Your task to perform on an android device: turn off notifications settings in the gmail app Image 0: 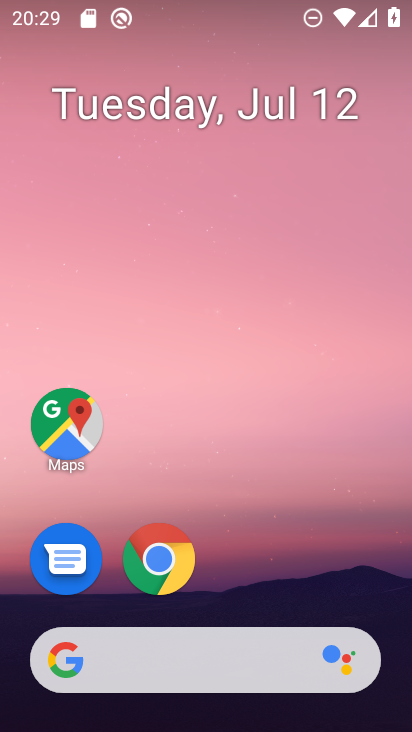
Step 0: drag from (324, 578) to (346, 153)
Your task to perform on an android device: turn off notifications settings in the gmail app Image 1: 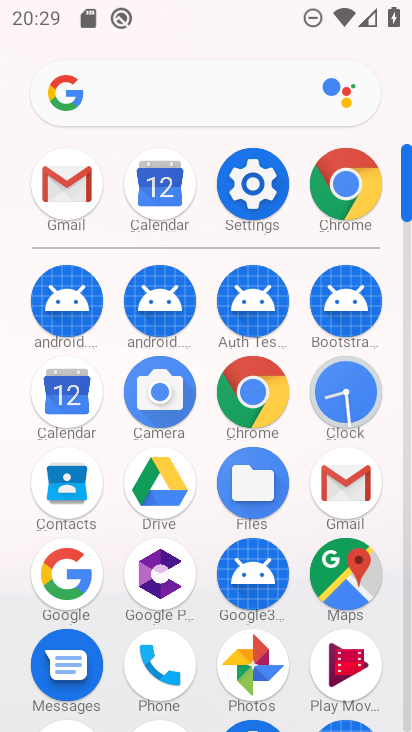
Step 1: click (341, 481)
Your task to perform on an android device: turn off notifications settings in the gmail app Image 2: 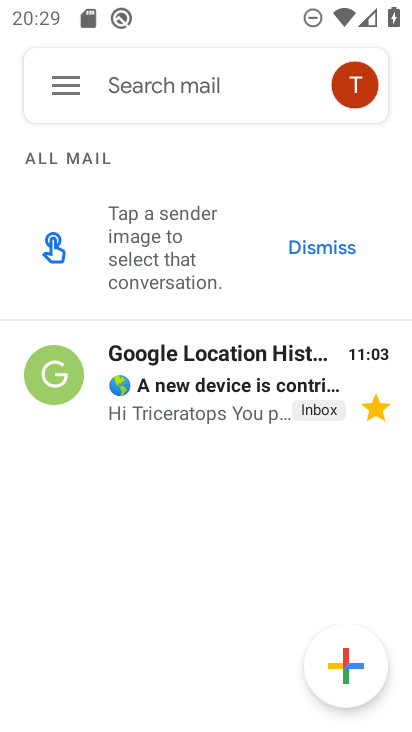
Step 2: click (57, 87)
Your task to perform on an android device: turn off notifications settings in the gmail app Image 3: 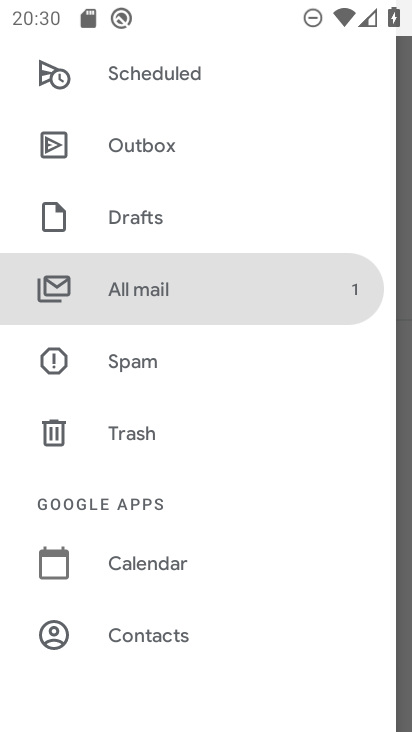
Step 3: drag from (303, 470) to (319, 368)
Your task to perform on an android device: turn off notifications settings in the gmail app Image 4: 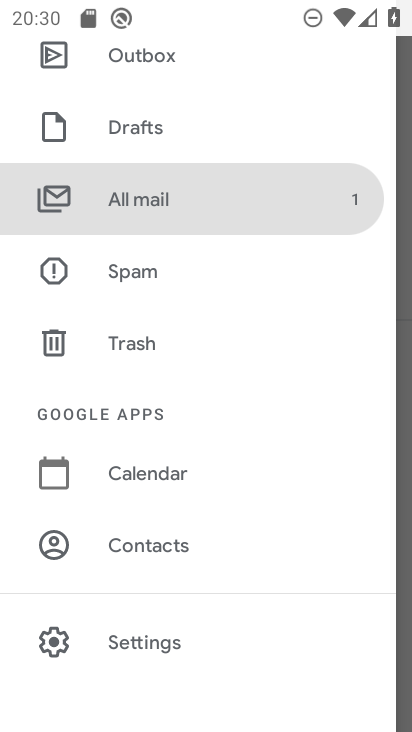
Step 4: drag from (323, 510) to (340, 277)
Your task to perform on an android device: turn off notifications settings in the gmail app Image 5: 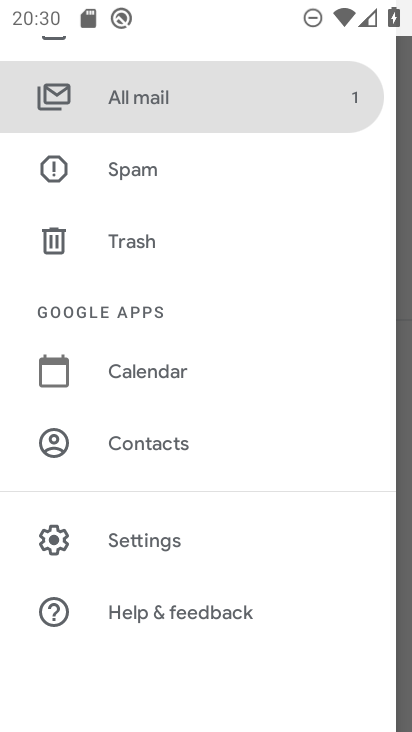
Step 5: click (223, 550)
Your task to perform on an android device: turn off notifications settings in the gmail app Image 6: 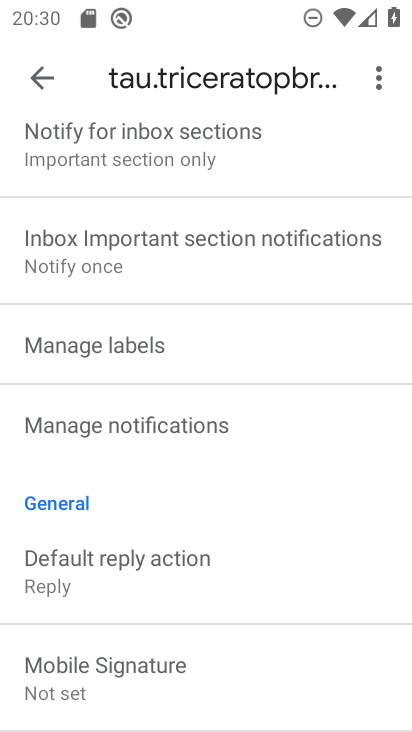
Step 6: drag from (291, 530) to (299, 442)
Your task to perform on an android device: turn off notifications settings in the gmail app Image 7: 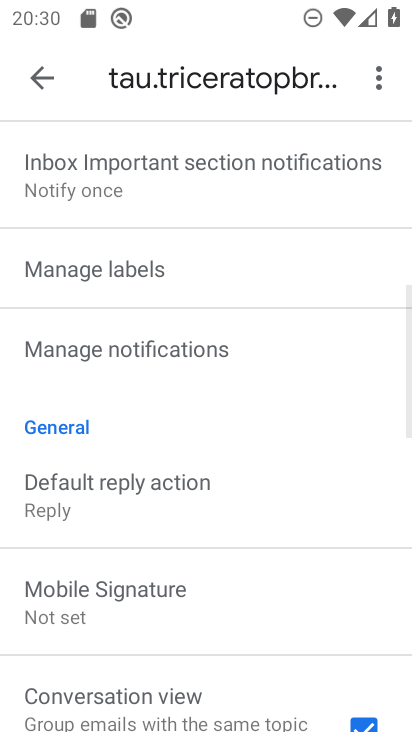
Step 7: drag from (317, 548) to (333, 417)
Your task to perform on an android device: turn off notifications settings in the gmail app Image 8: 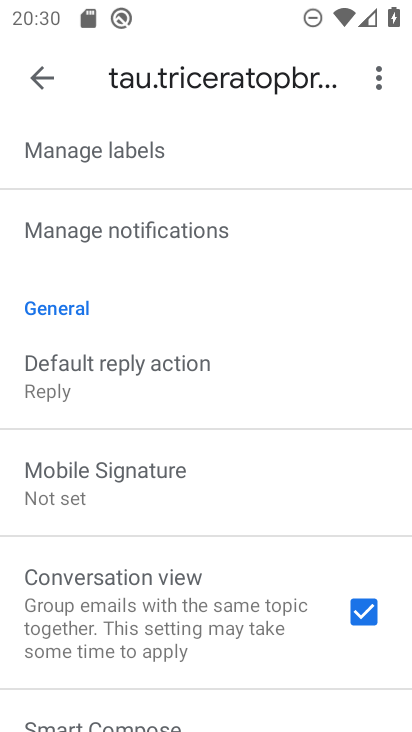
Step 8: drag from (312, 524) to (324, 409)
Your task to perform on an android device: turn off notifications settings in the gmail app Image 9: 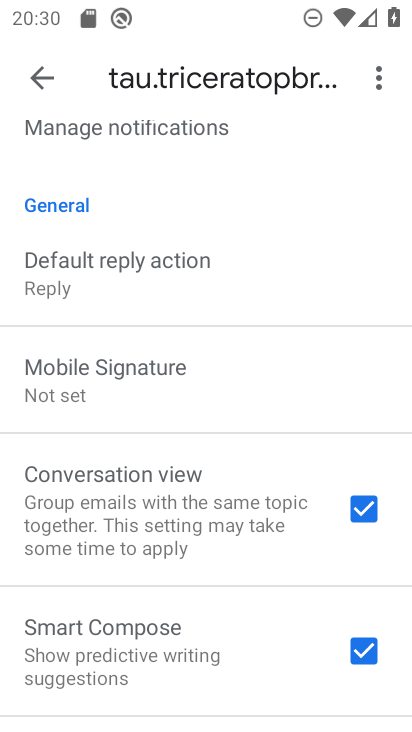
Step 9: drag from (288, 581) to (299, 367)
Your task to perform on an android device: turn off notifications settings in the gmail app Image 10: 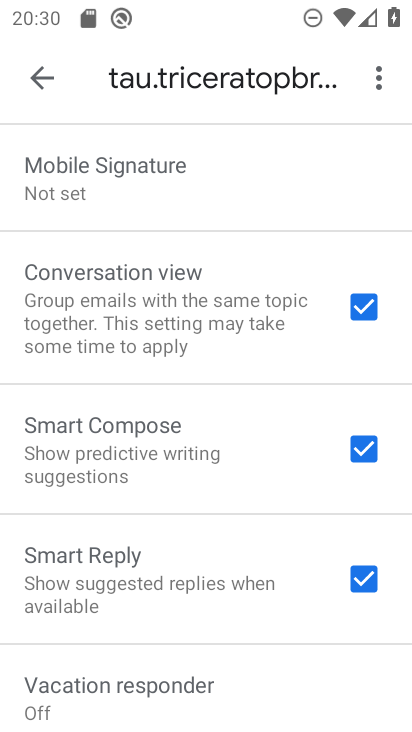
Step 10: drag from (285, 513) to (299, 310)
Your task to perform on an android device: turn off notifications settings in the gmail app Image 11: 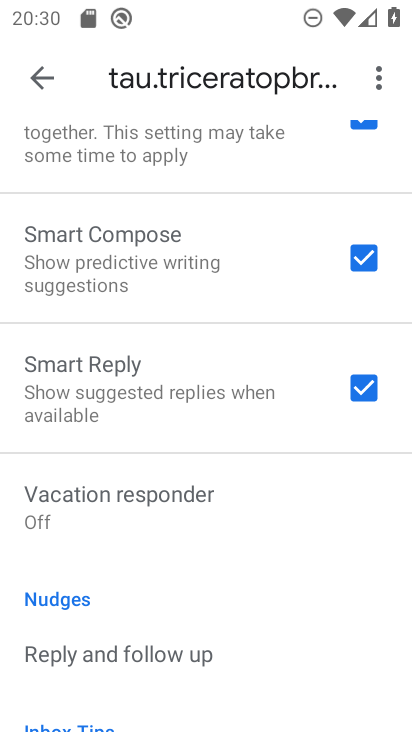
Step 11: drag from (264, 330) to (265, 439)
Your task to perform on an android device: turn off notifications settings in the gmail app Image 12: 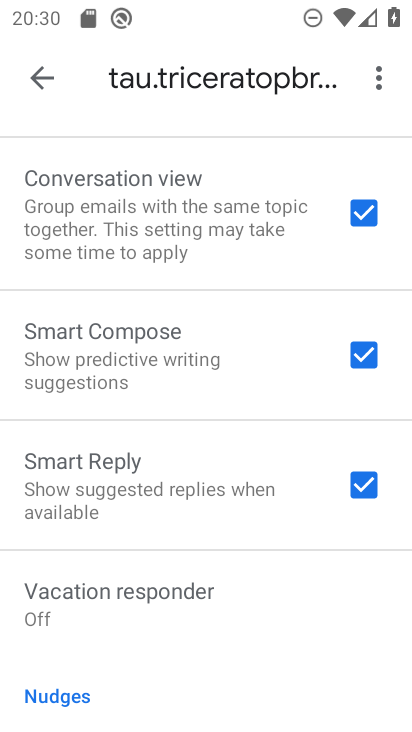
Step 12: drag from (290, 282) to (292, 424)
Your task to perform on an android device: turn off notifications settings in the gmail app Image 13: 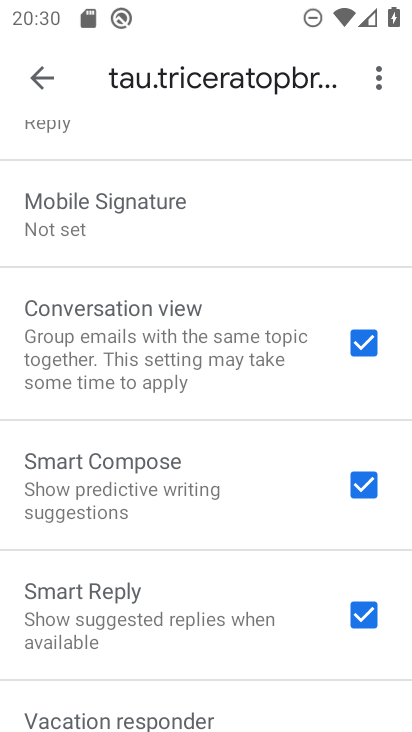
Step 13: drag from (287, 229) to (279, 416)
Your task to perform on an android device: turn off notifications settings in the gmail app Image 14: 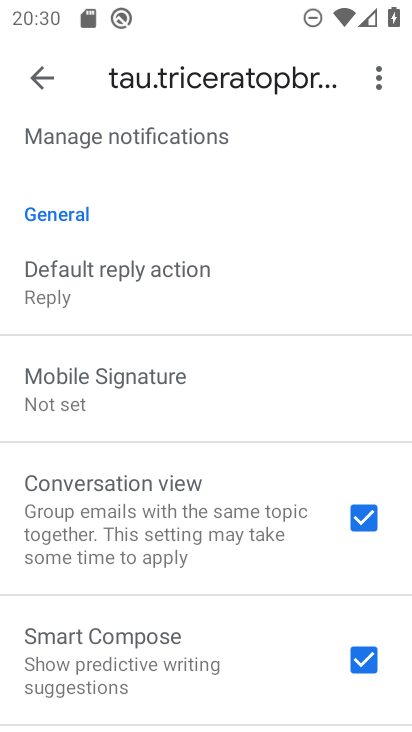
Step 14: drag from (276, 223) to (272, 391)
Your task to perform on an android device: turn off notifications settings in the gmail app Image 15: 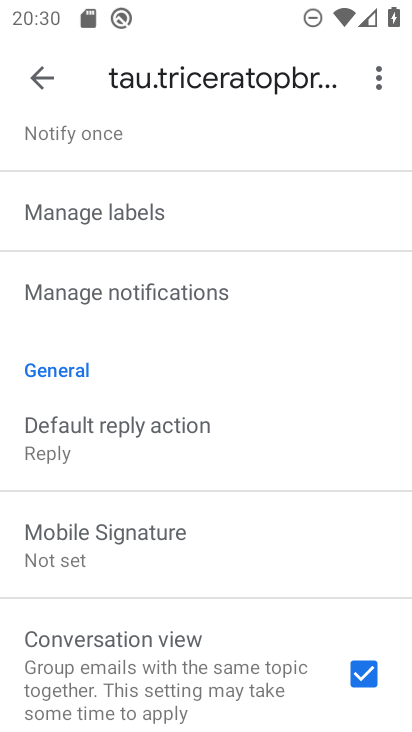
Step 15: click (241, 298)
Your task to perform on an android device: turn off notifications settings in the gmail app Image 16: 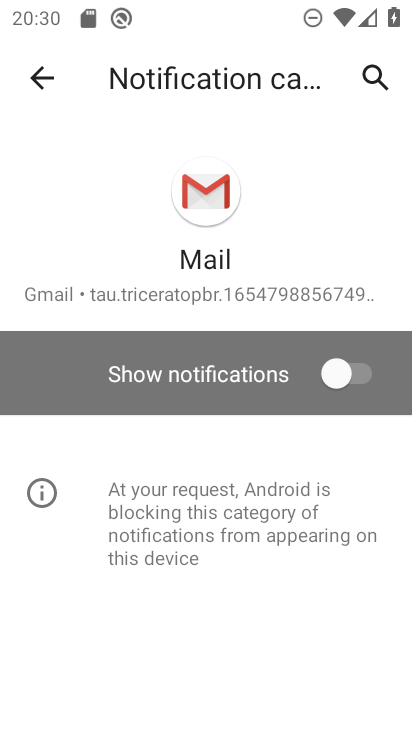
Step 16: task complete